Your task to perform on an android device: What's the latest news in space exploration? Image 0: 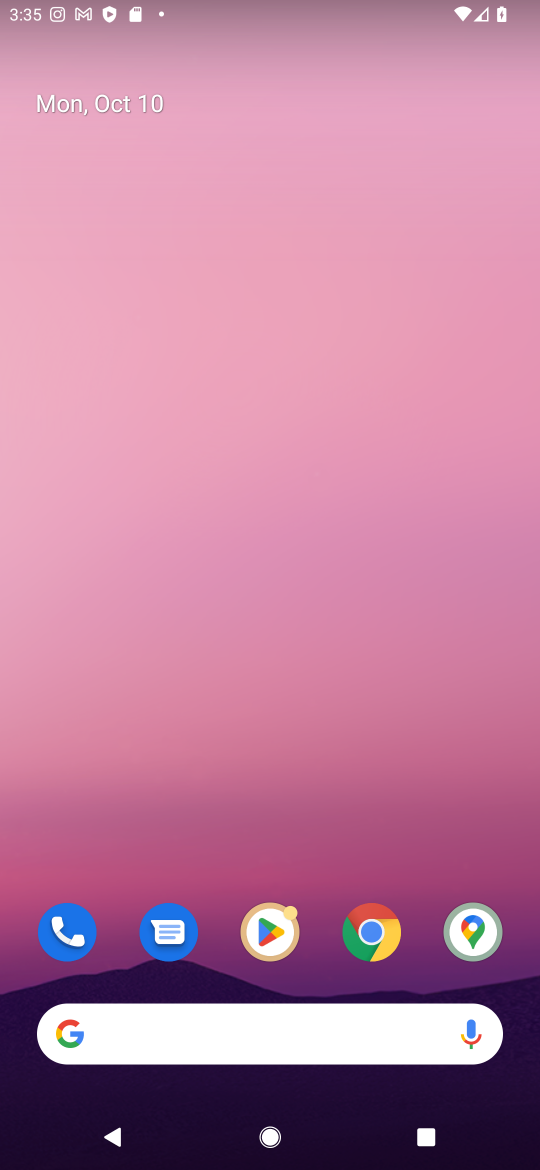
Step 0: press home button
Your task to perform on an android device: What's the latest news in space exploration? Image 1: 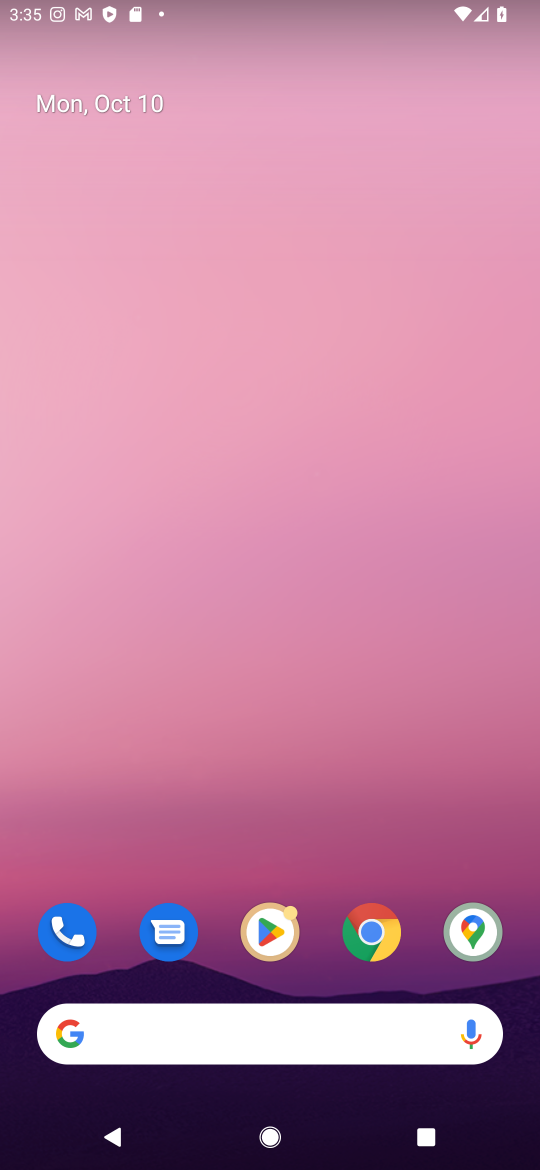
Step 1: click (335, 1038)
Your task to perform on an android device: What's the latest news in space exploration? Image 2: 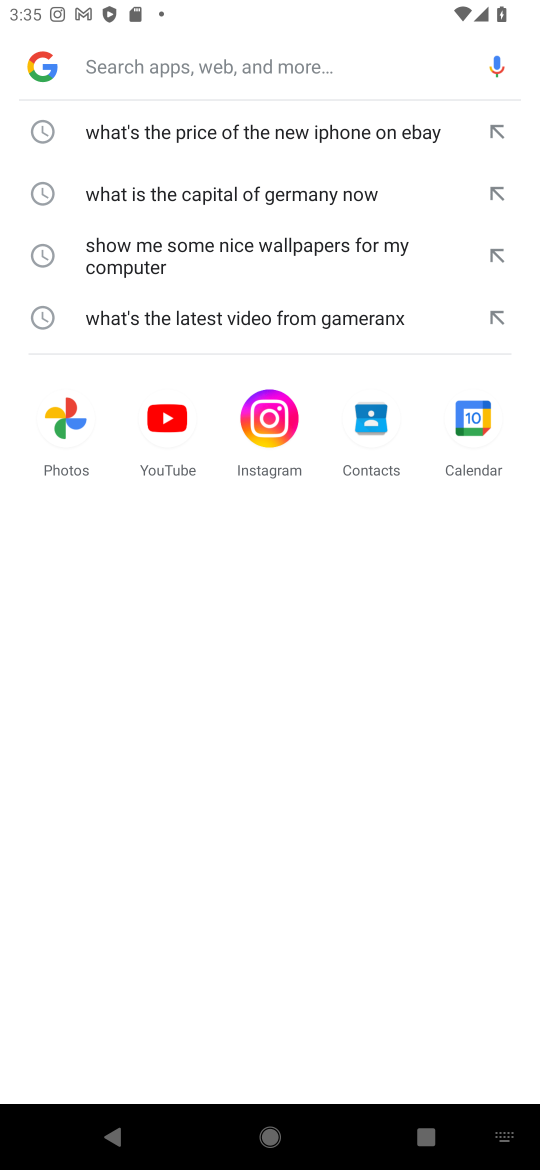
Step 2: type "What's the latest news in space exploration"
Your task to perform on an android device: What's the latest news in space exploration? Image 3: 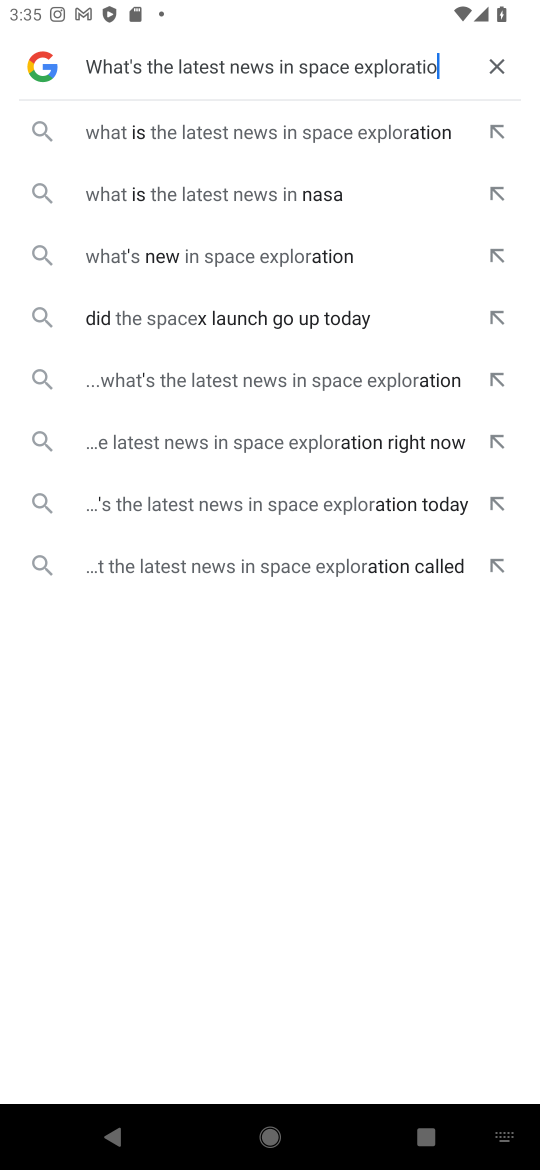
Step 3: press enter
Your task to perform on an android device: What's the latest news in space exploration? Image 4: 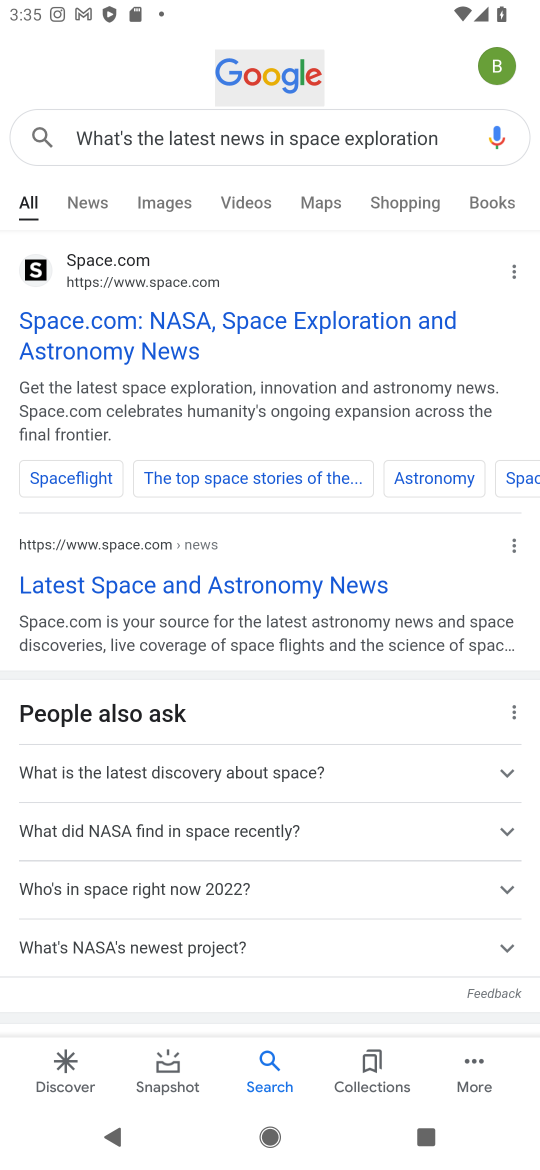
Step 4: click (335, 321)
Your task to perform on an android device: What's the latest news in space exploration? Image 5: 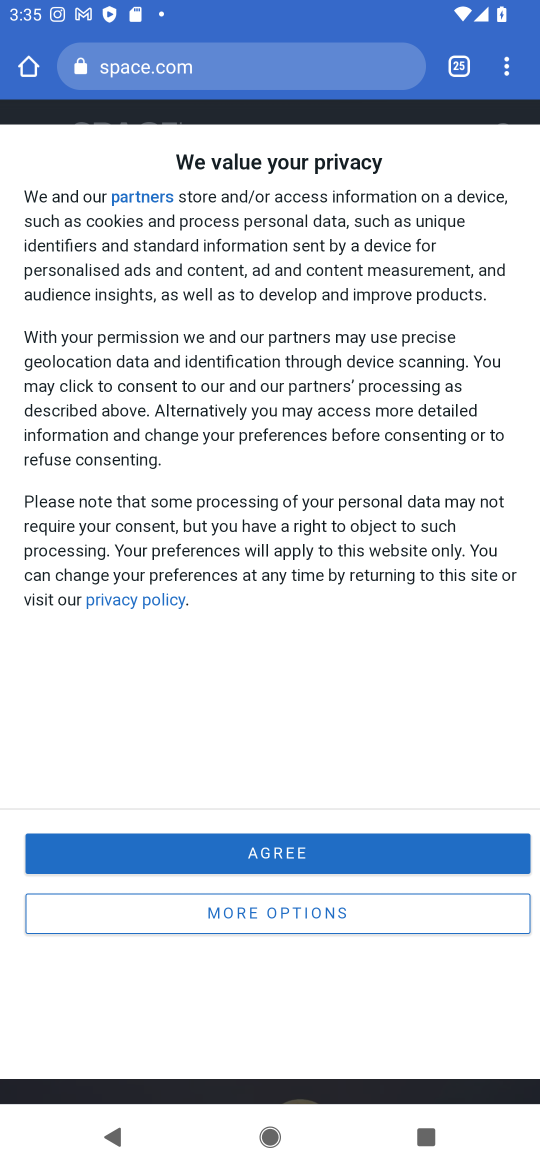
Step 5: click (470, 846)
Your task to perform on an android device: What's the latest news in space exploration? Image 6: 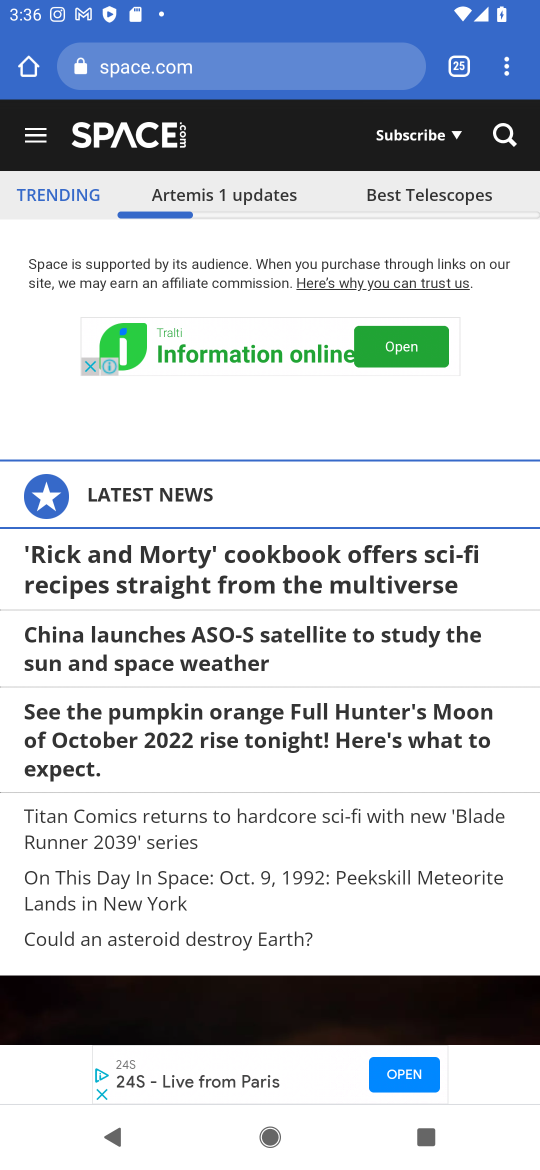
Step 6: task complete